Your task to perform on an android device: Open wifi settings Image 0: 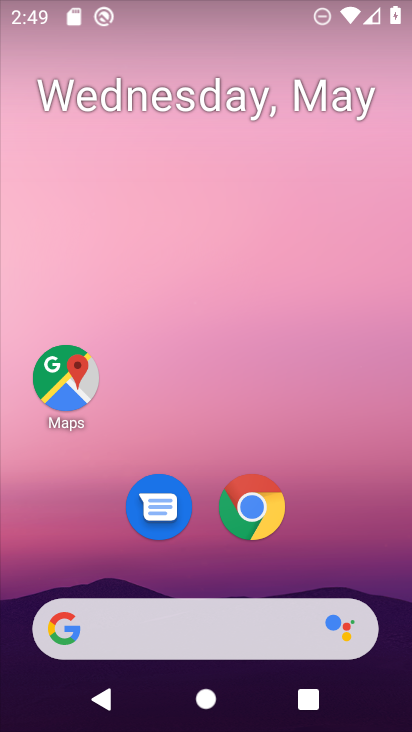
Step 0: drag from (236, 562) to (258, 7)
Your task to perform on an android device: Open wifi settings Image 1: 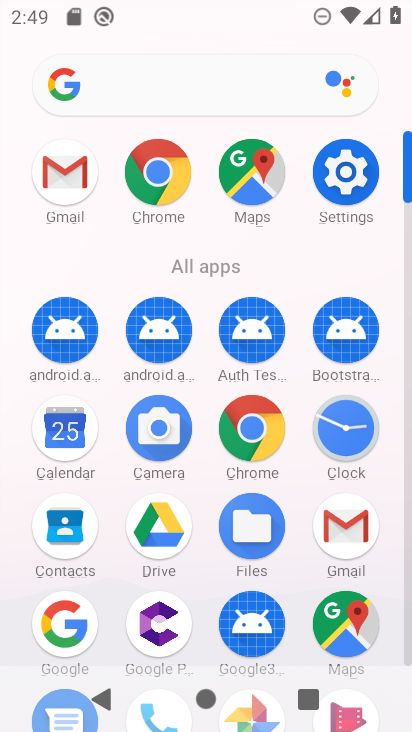
Step 1: click (334, 197)
Your task to perform on an android device: Open wifi settings Image 2: 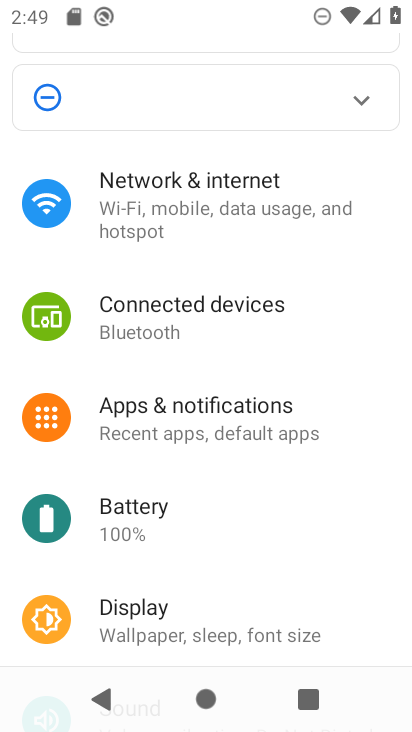
Step 2: drag from (276, 221) to (273, 343)
Your task to perform on an android device: Open wifi settings Image 3: 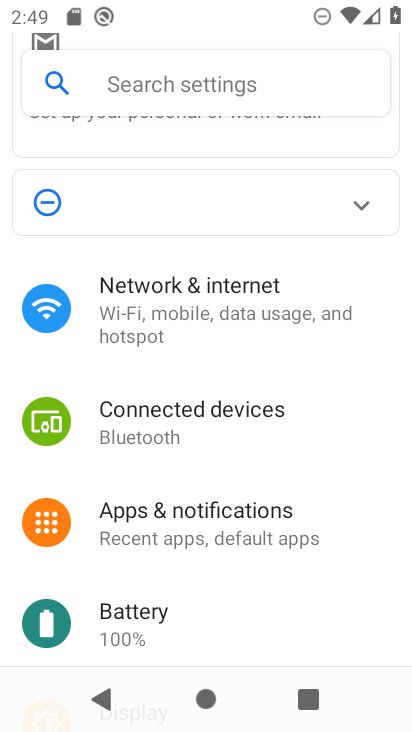
Step 3: click (230, 304)
Your task to perform on an android device: Open wifi settings Image 4: 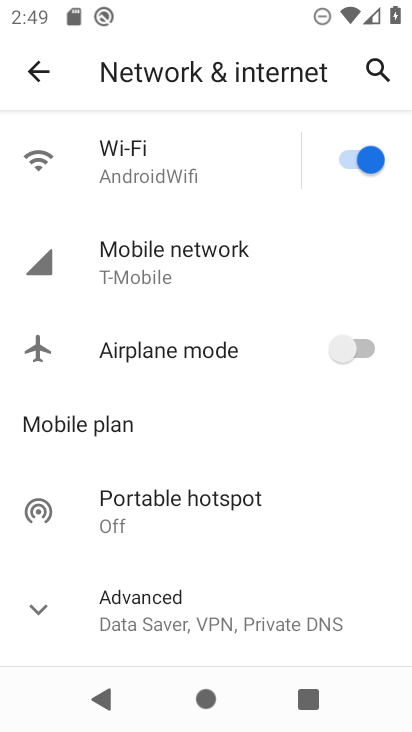
Step 4: click (187, 167)
Your task to perform on an android device: Open wifi settings Image 5: 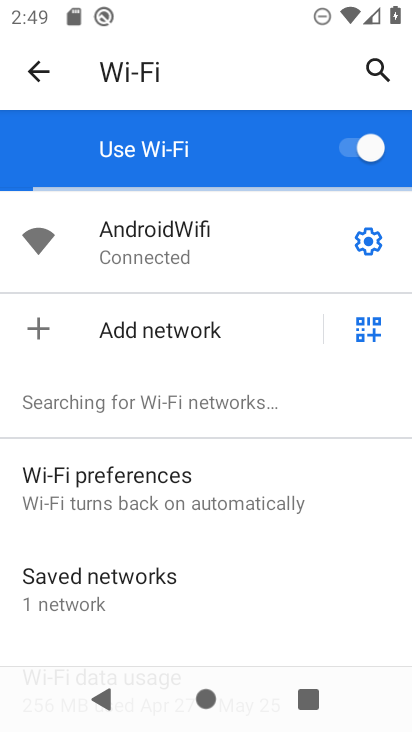
Step 5: task complete